Your task to perform on an android device: turn on data saver in the chrome app Image 0: 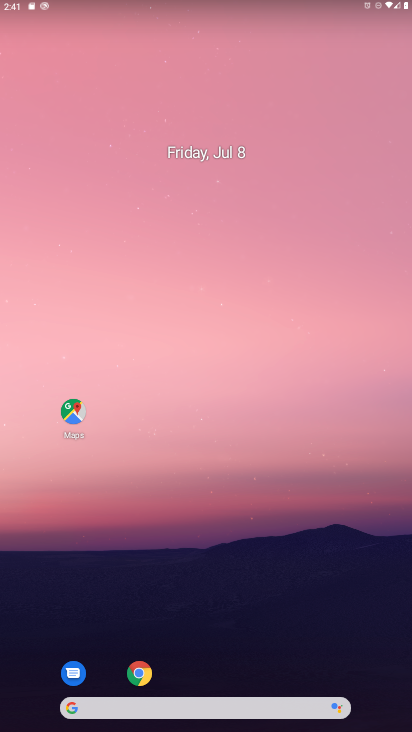
Step 0: click (140, 674)
Your task to perform on an android device: turn on data saver in the chrome app Image 1: 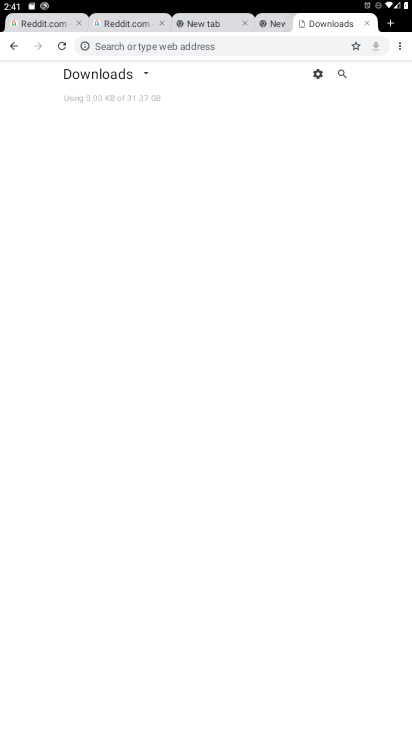
Step 1: press back button
Your task to perform on an android device: turn on data saver in the chrome app Image 2: 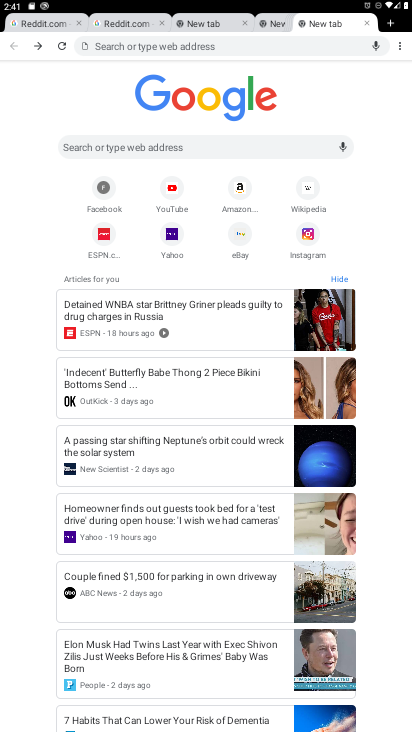
Step 2: click (402, 44)
Your task to perform on an android device: turn on data saver in the chrome app Image 3: 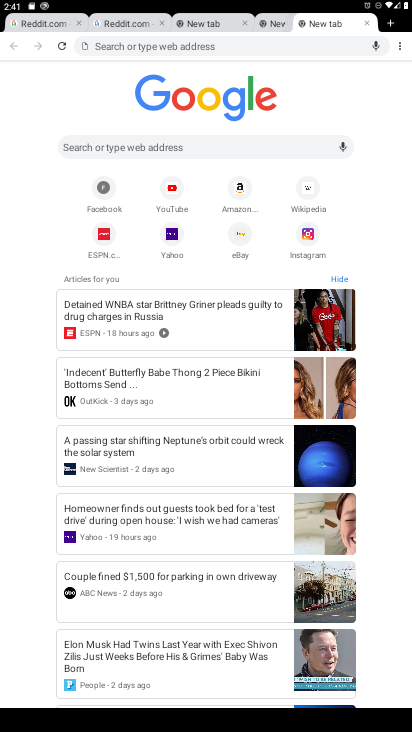
Step 3: click (398, 45)
Your task to perform on an android device: turn on data saver in the chrome app Image 4: 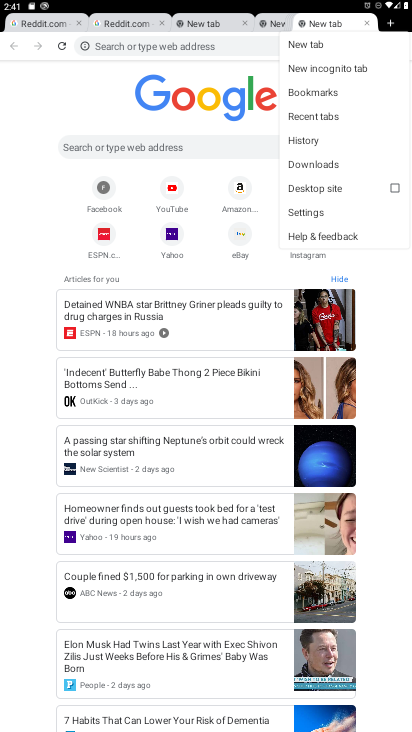
Step 4: click (305, 211)
Your task to perform on an android device: turn on data saver in the chrome app Image 5: 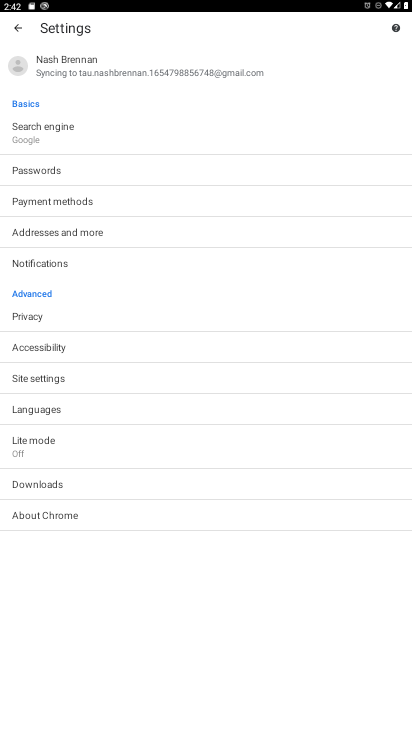
Step 5: click (40, 439)
Your task to perform on an android device: turn on data saver in the chrome app Image 6: 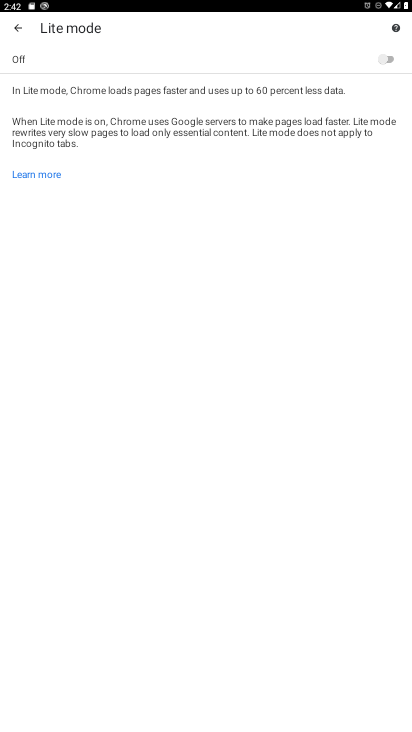
Step 6: click (389, 56)
Your task to perform on an android device: turn on data saver in the chrome app Image 7: 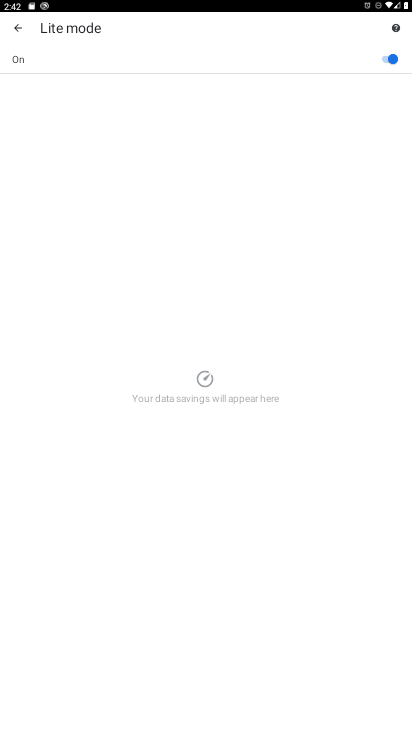
Step 7: task complete